Your task to perform on an android device: Open wifi settings Image 0: 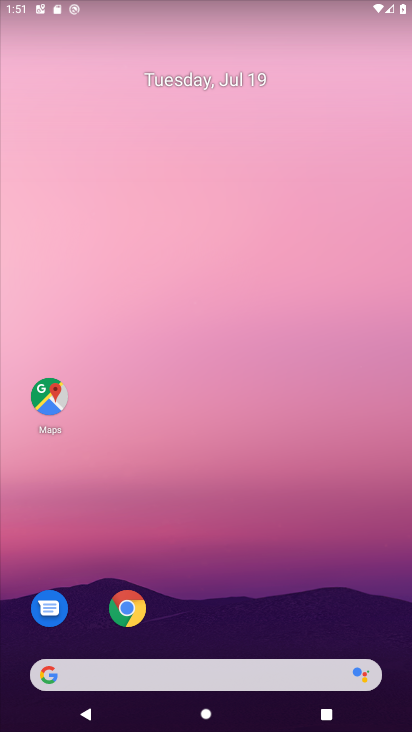
Step 0: drag from (188, 344) to (184, 191)
Your task to perform on an android device: Open wifi settings Image 1: 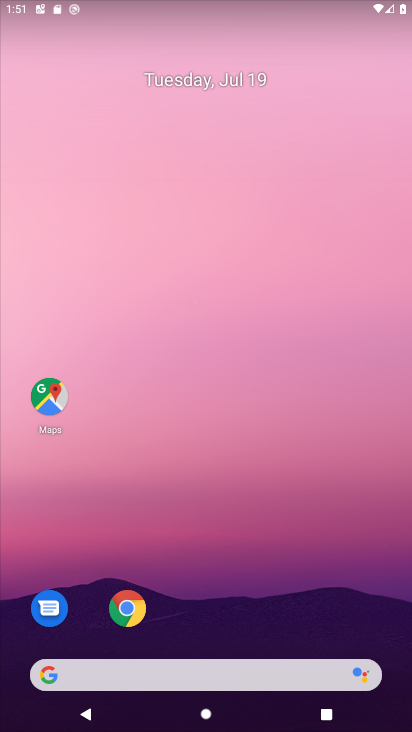
Step 1: drag from (249, 617) to (310, 84)
Your task to perform on an android device: Open wifi settings Image 2: 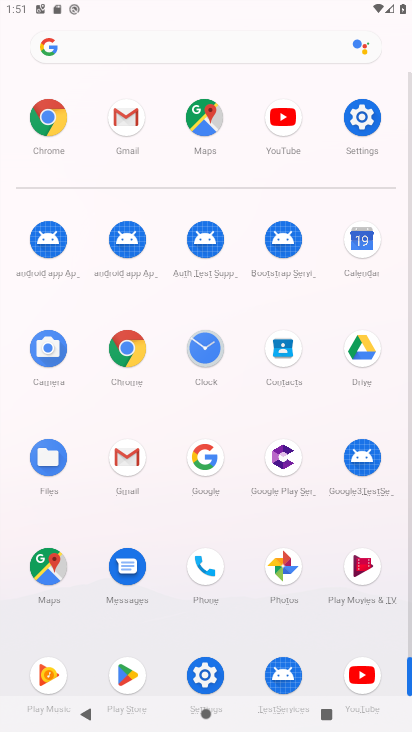
Step 2: click (212, 678)
Your task to perform on an android device: Open wifi settings Image 3: 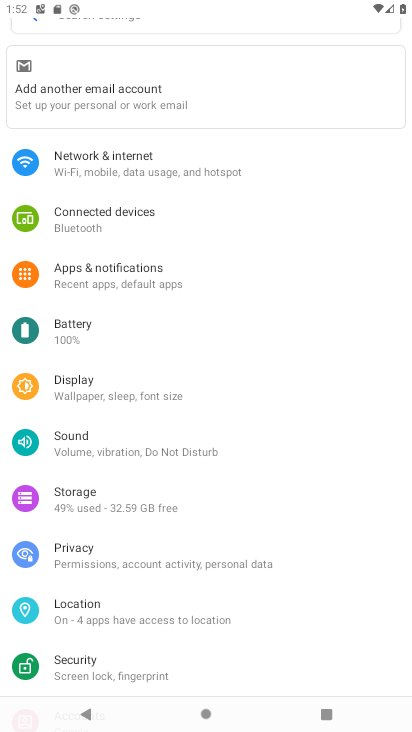
Step 3: click (94, 169)
Your task to perform on an android device: Open wifi settings Image 4: 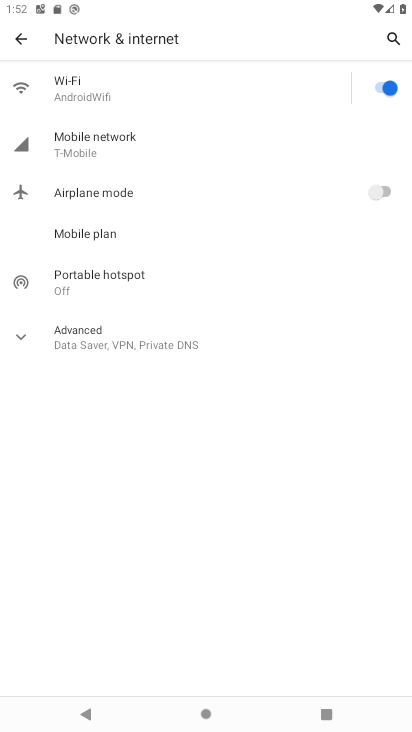
Step 4: click (134, 94)
Your task to perform on an android device: Open wifi settings Image 5: 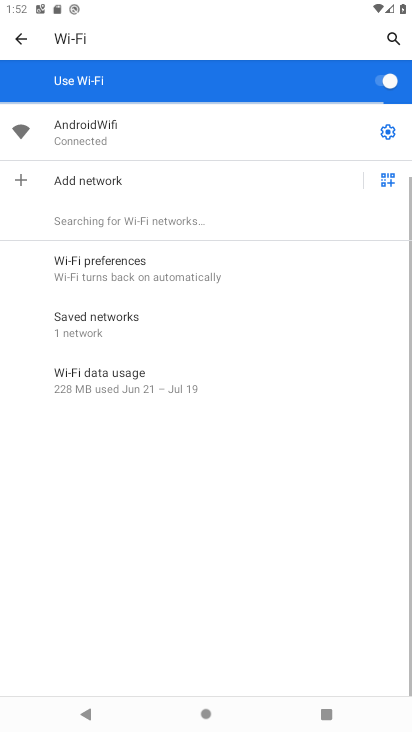
Step 5: task complete